Your task to perform on an android device: open app "HBO Max: Stream TV & Movies" (install if not already installed) Image 0: 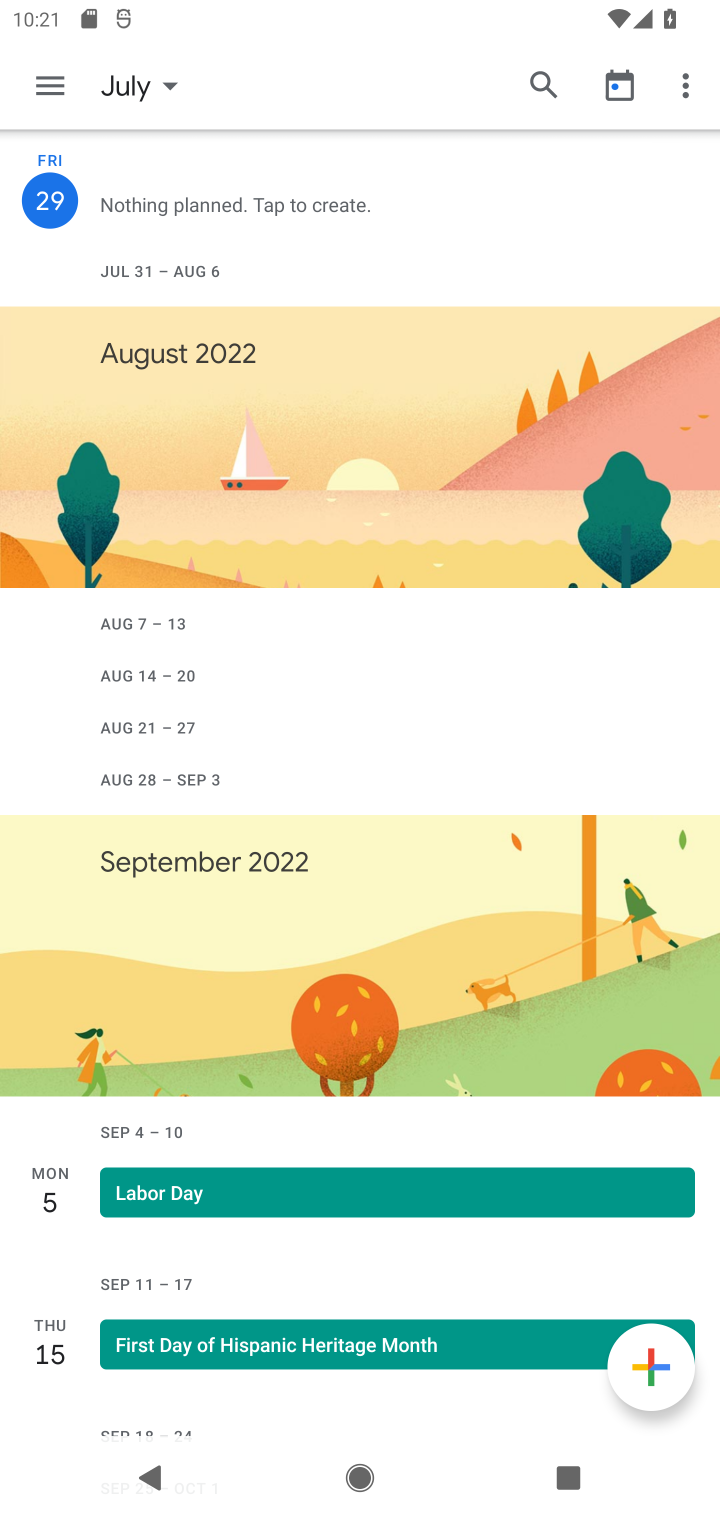
Step 0: press home button
Your task to perform on an android device: open app "HBO Max: Stream TV & Movies" (install if not already installed) Image 1: 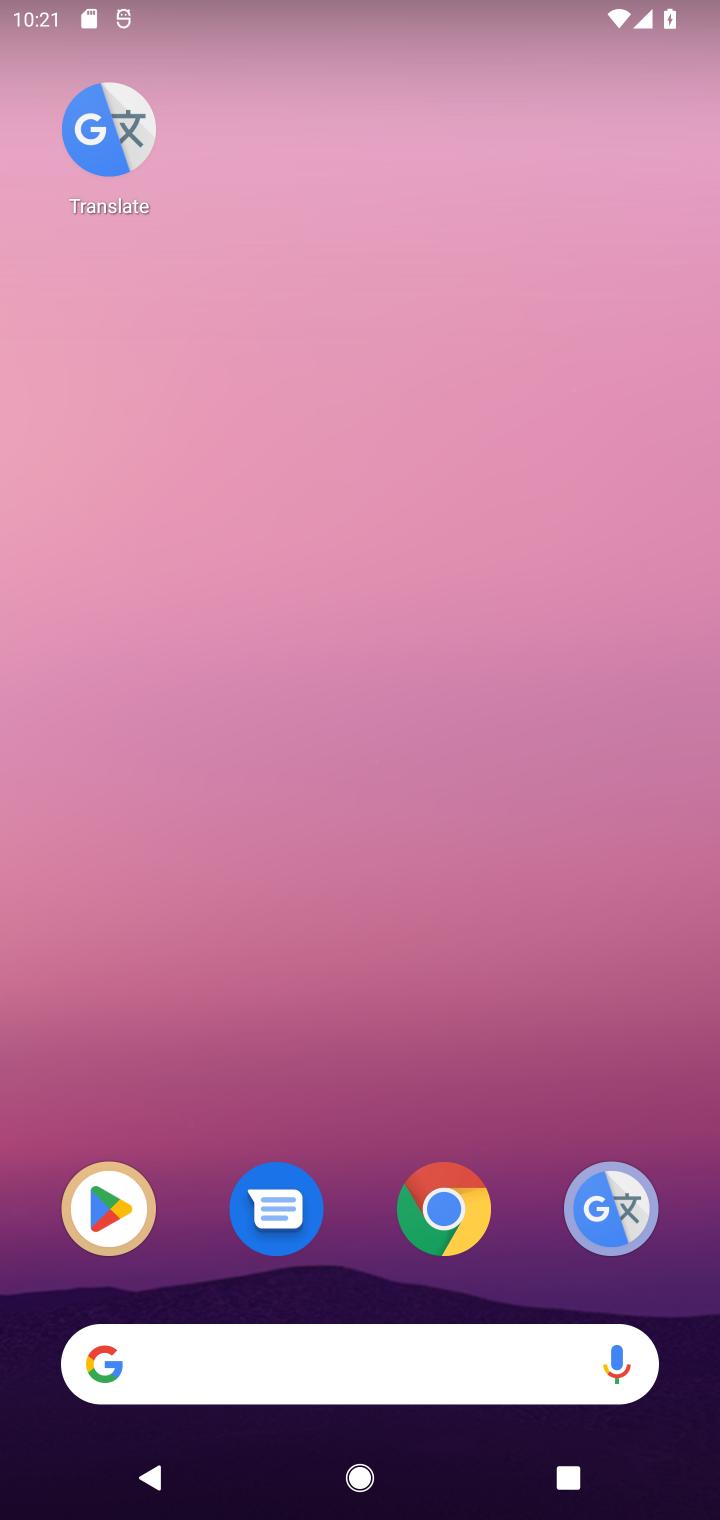
Step 1: drag from (364, 1033) to (405, 242)
Your task to perform on an android device: open app "HBO Max: Stream TV & Movies" (install if not already installed) Image 2: 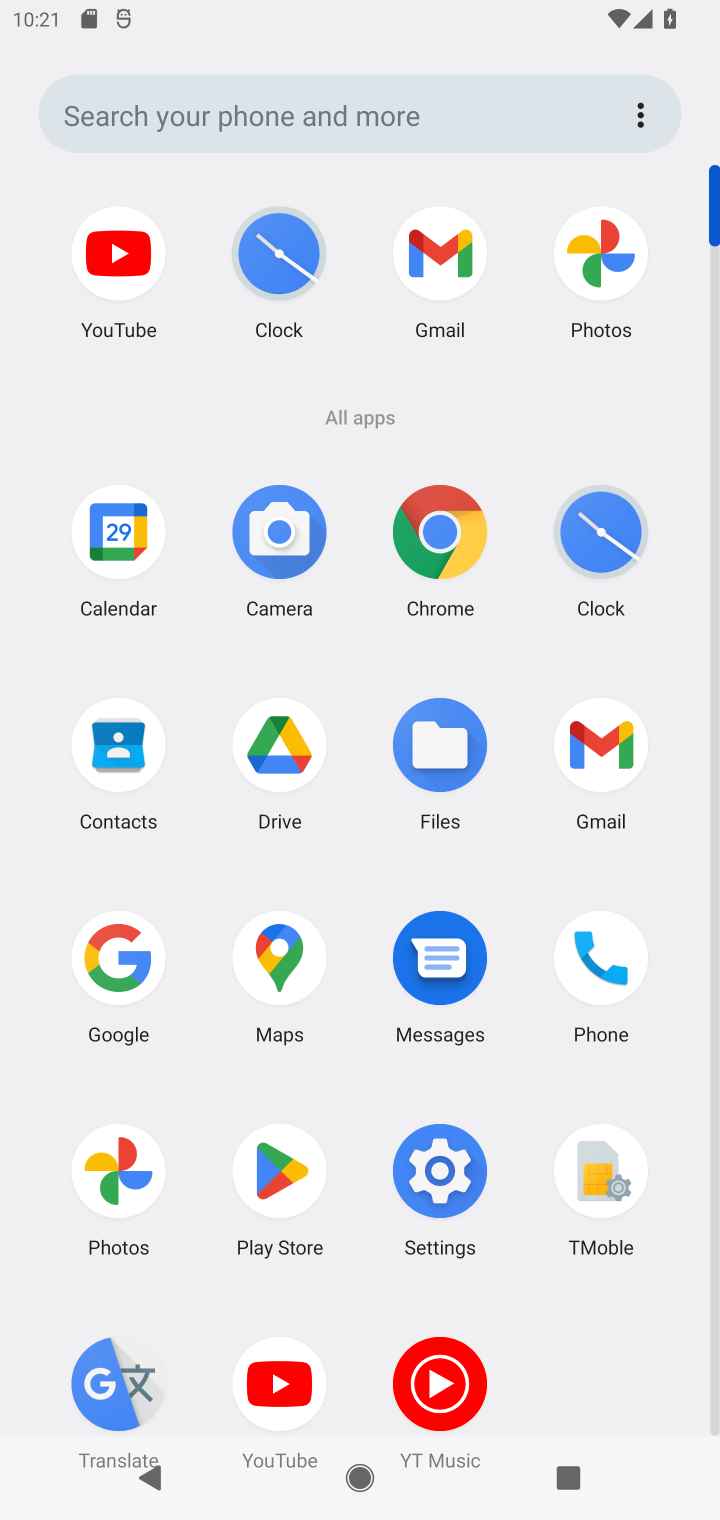
Step 2: click (277, 1172)
Your task to perform on an android device: open app "HBO Max: Stream TV & Movies" (install if not already installed) Image 3: 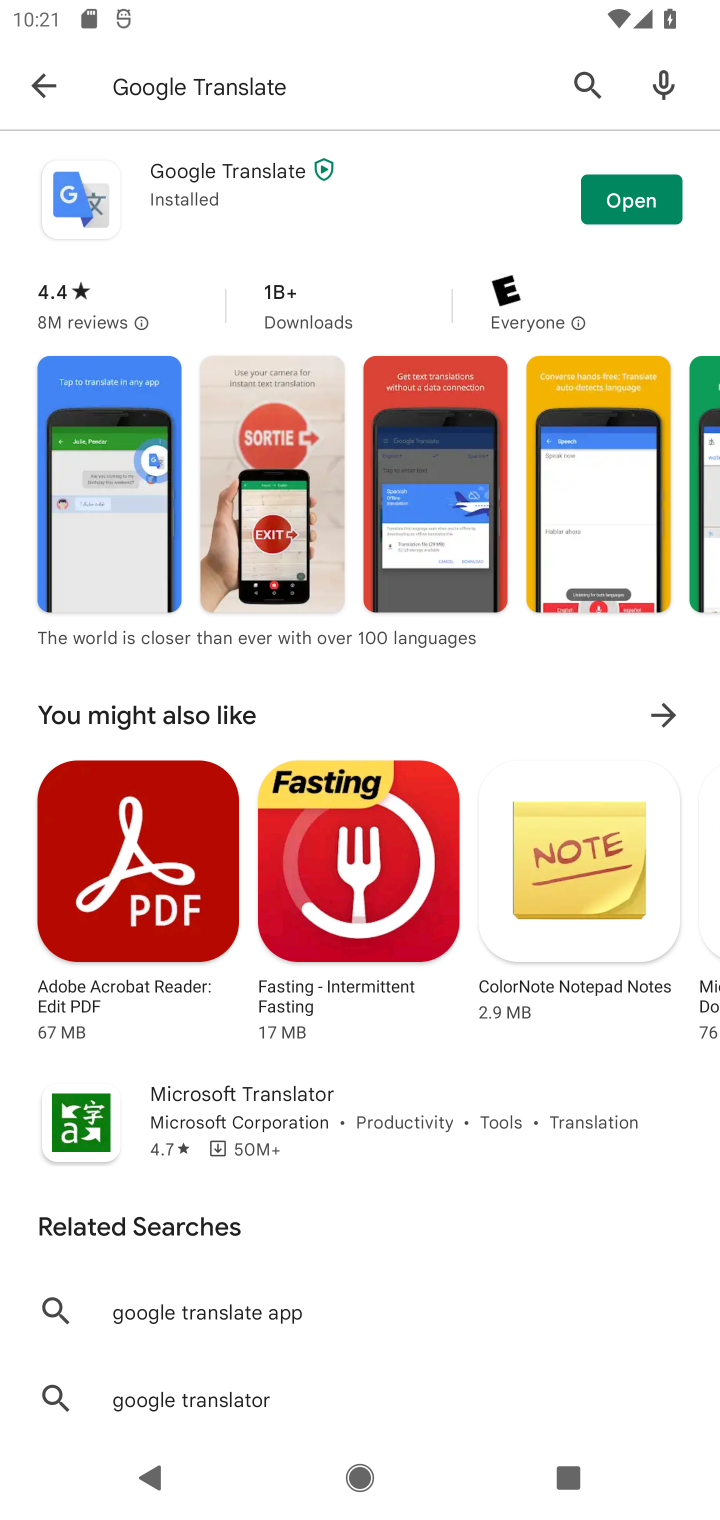
Step 3: click (325, 74)
Your task to perform on an android device: open app "HBO Max: Stream TV & Movies" (install if not already installed) Image 4: 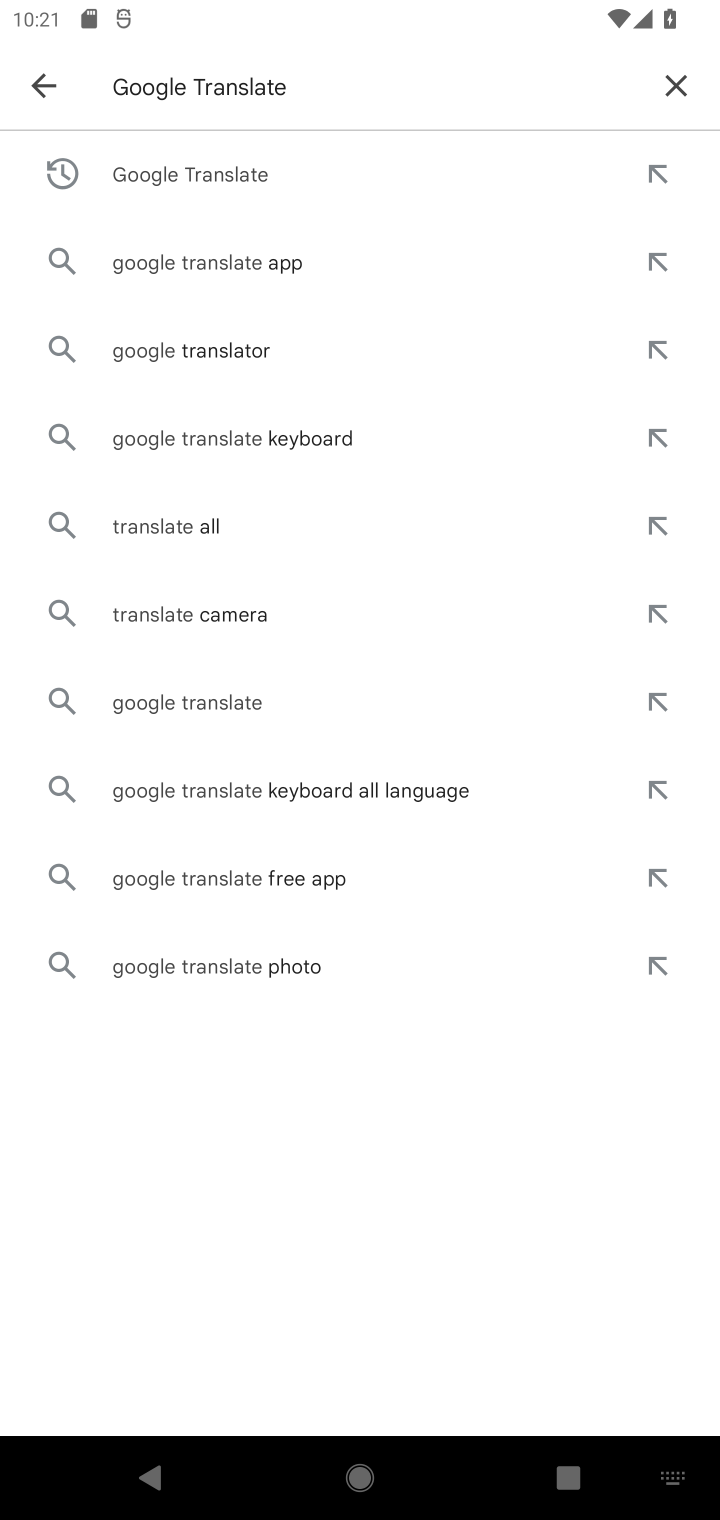
Step 4: click (668, 84)
Your task to perform on an android device: open app "HBO Max: Stream TV & Movies" (install if not already installed) Image 5: 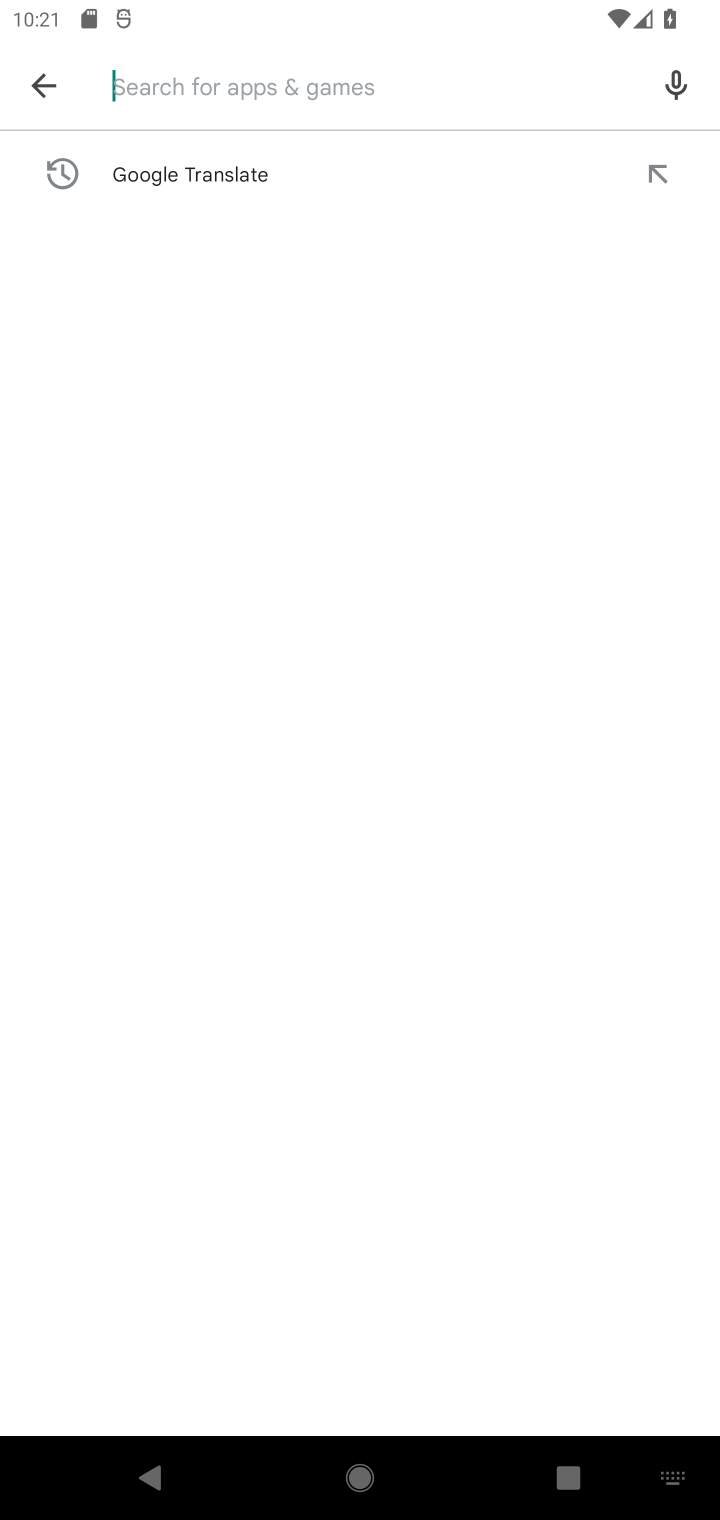
Step 5: type "HBO Max: Stream TV & Movies"
Your task to perform on an android device: open app "HBO Max: Stream TV & Movies" (install if not already installed) Image 6: 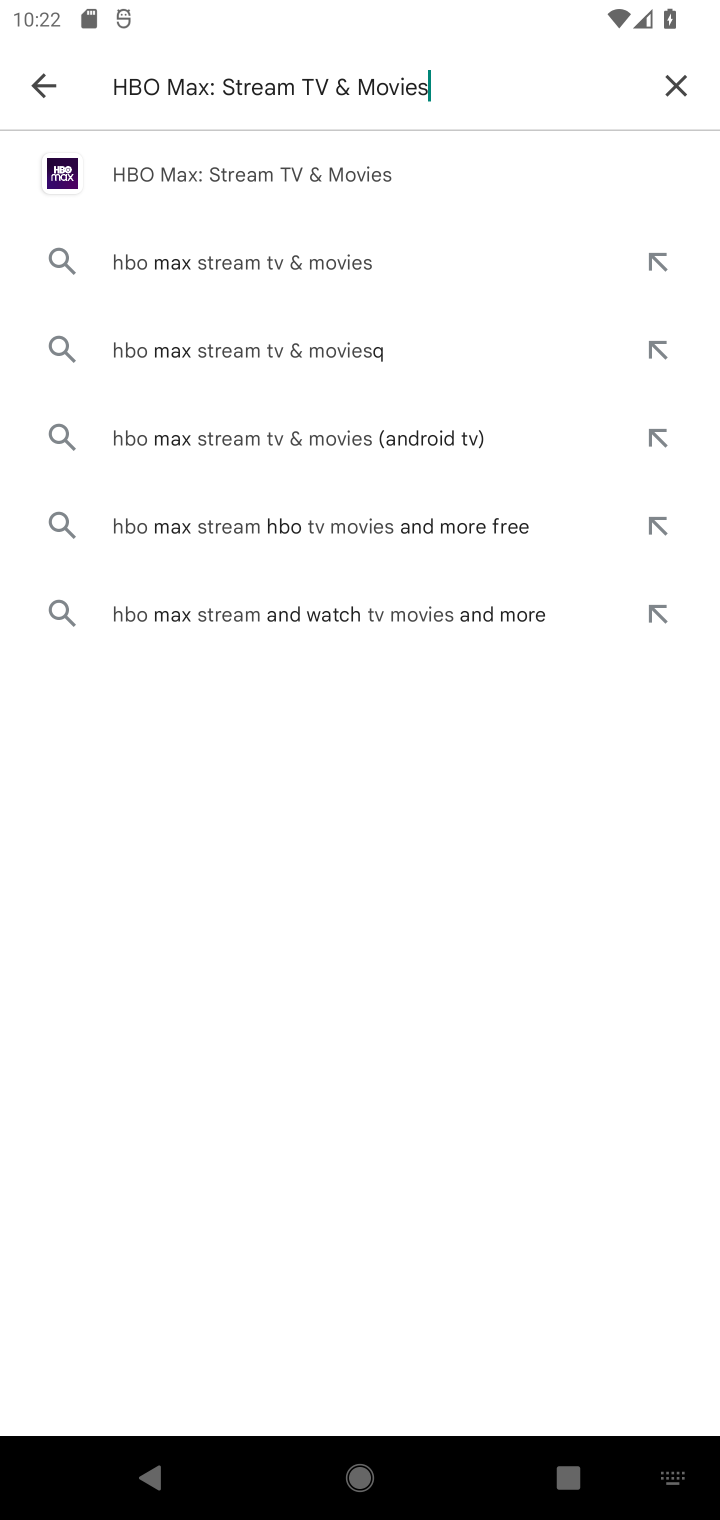
Step 6: press enter
Your task to perform on an android device: open app "HBO Max: Stream TV & Movies" (install if not already installed) Image 7: 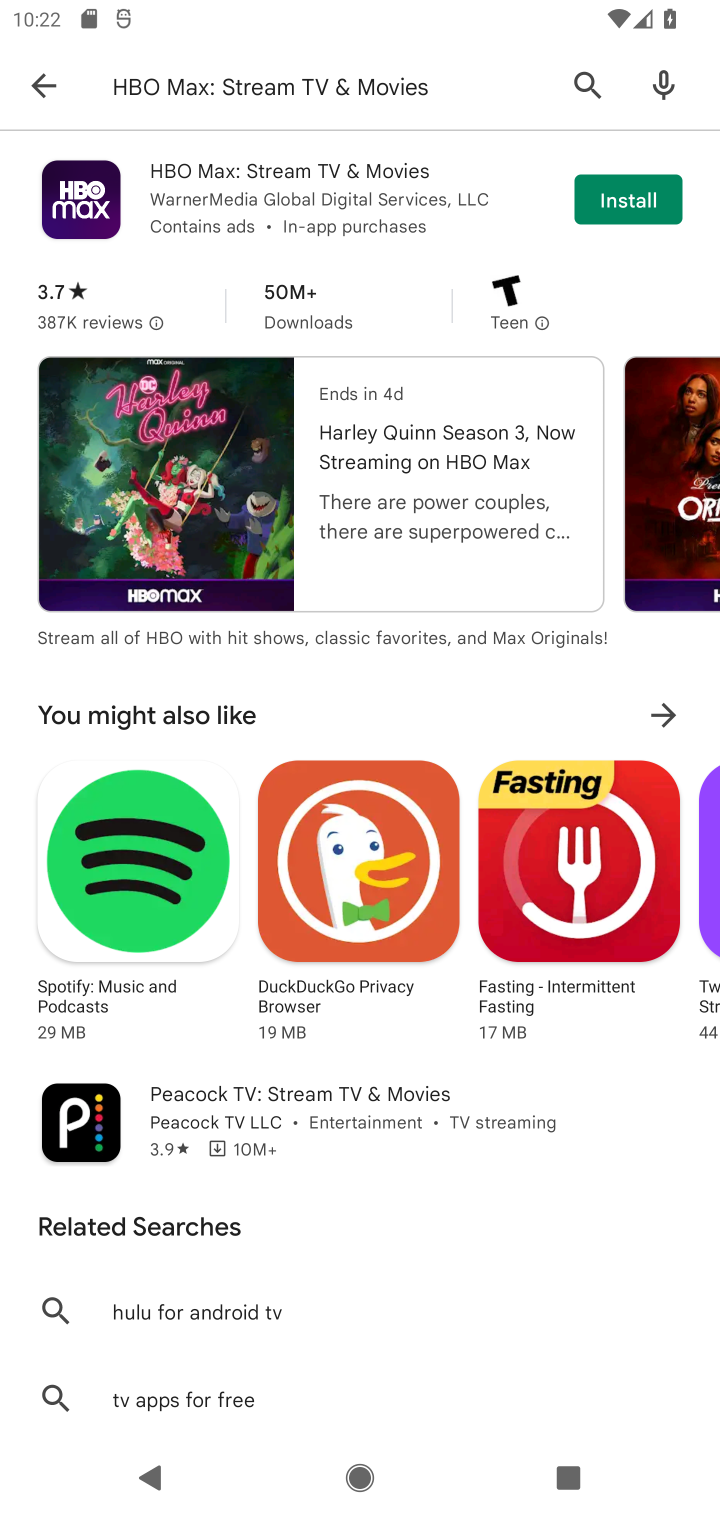
Step 7: click (623, 196)
Your task to perform on an android device: open app "HBO Max: Stream TV & Movies" (install if not already installed) Image 8: 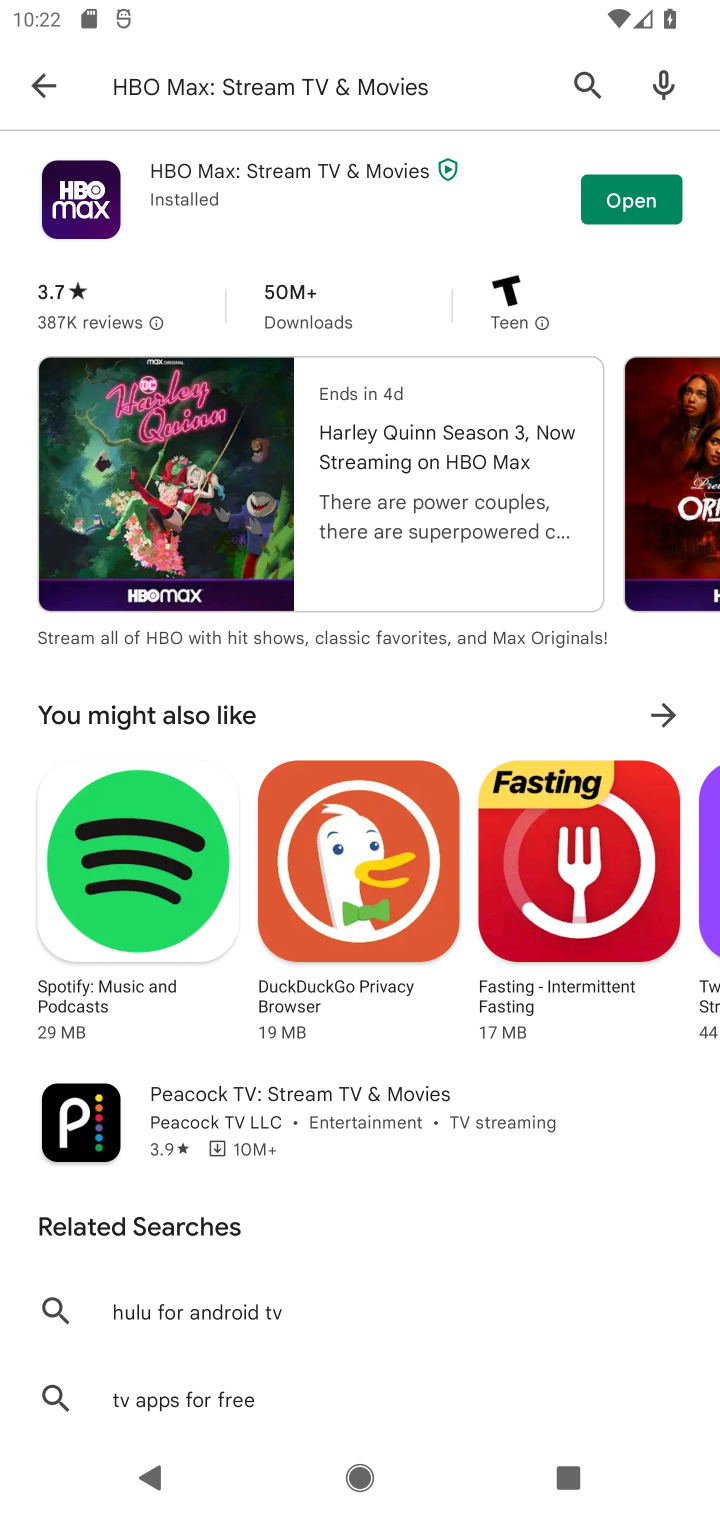
Step 8: click (661, 197)
Your task to perform on an android device: open app "HBO Max: Stream TV & Movies" (install if not already installed) Image 9: 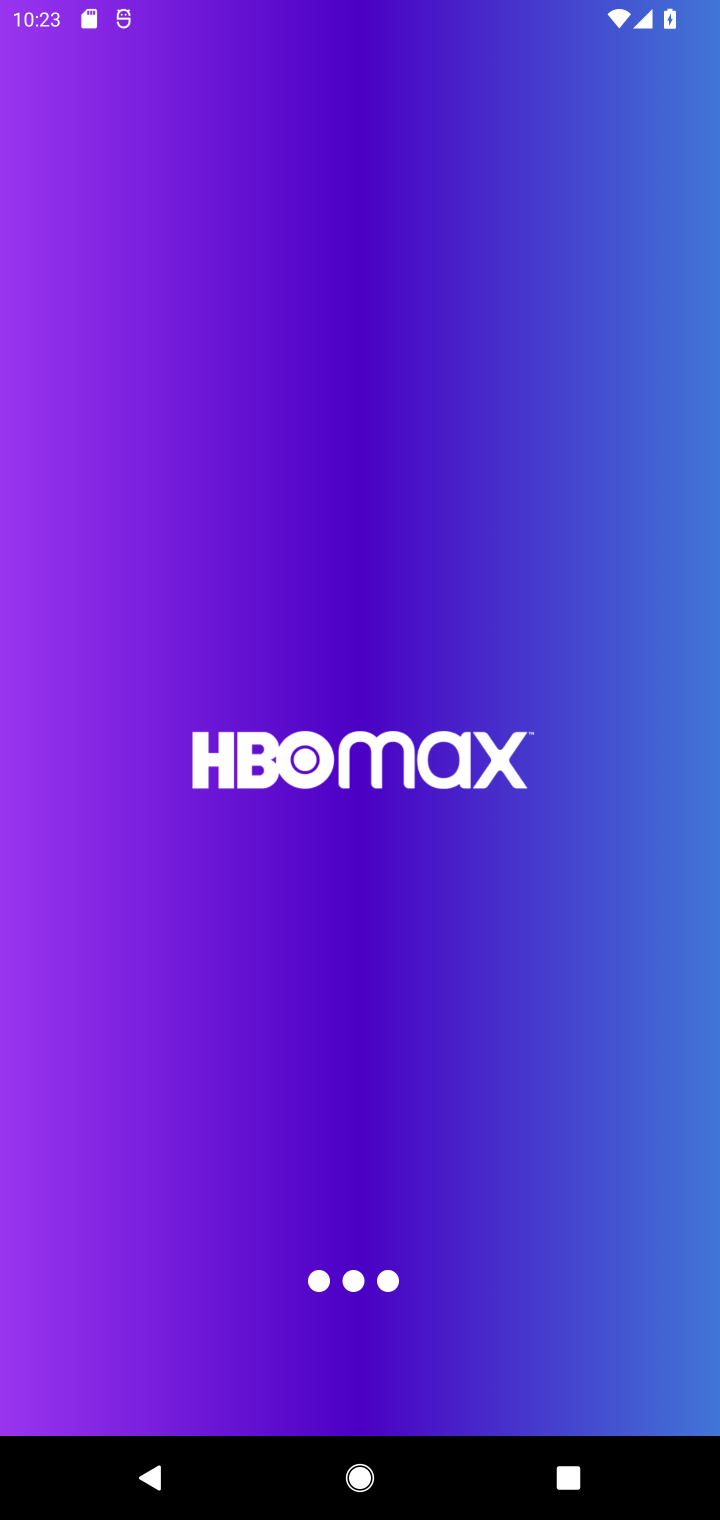
Step 9: task complete